Your task to perform on an android device: toggle notifications settings in the gmail app Image 0: 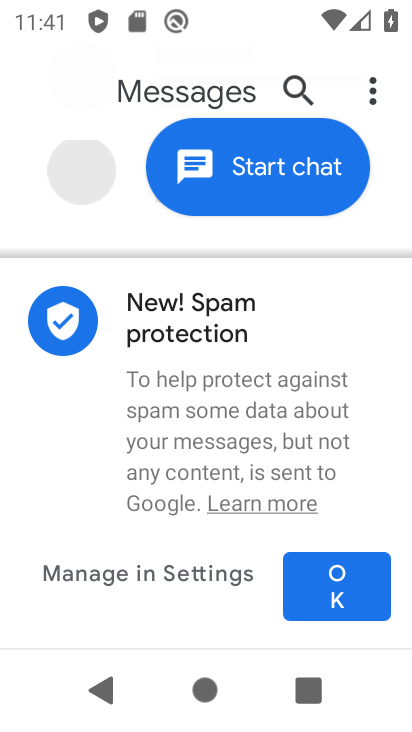
Step 0: press home button
Your task to perform on an android device: toggle notifications settings in the gmail app Image 1: 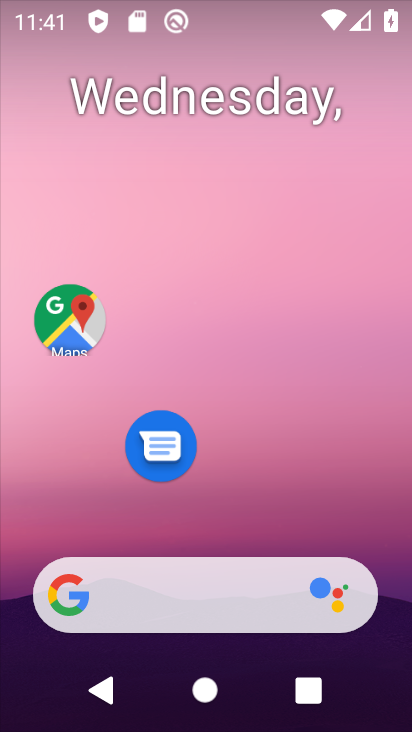
Step 1: drag from (245, 515) to (54, 75)
Your task to perform on an android device: toggle notifications settings in the gmail app Image 2: 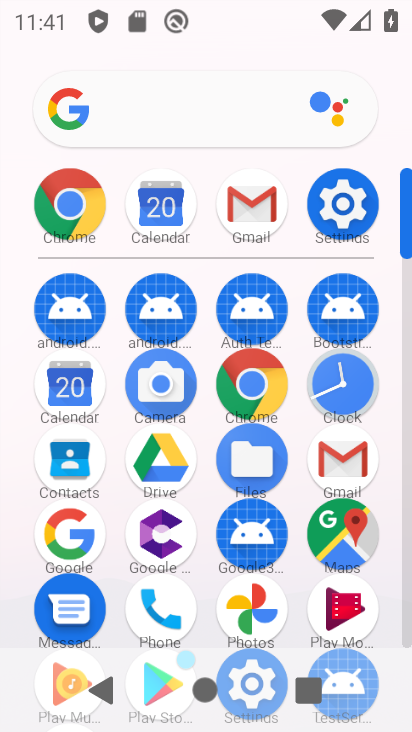
Step 2: click (253, 206)
Your task to perform on an android device: toggle notifications settings in the gmail app Image 3: 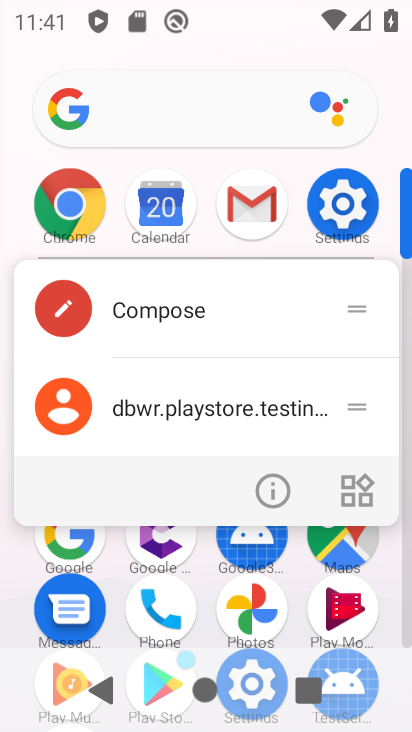
Step 3: click (254, 180)
Your task to perform on an android device: toggle notifications settings in the gmail app Image 4: 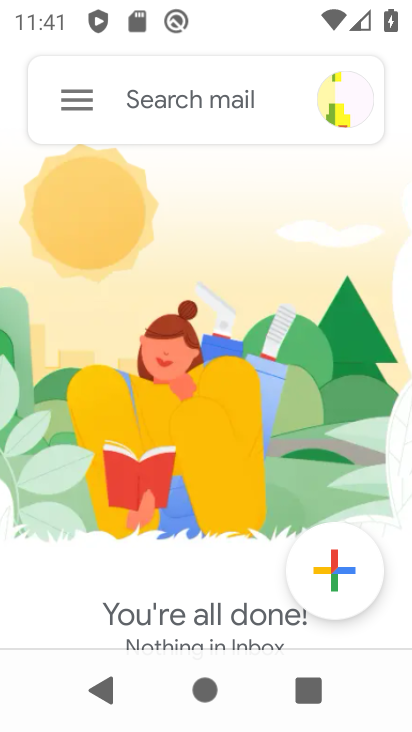
Step 4: click (74, 101)
Your task to perform on an android device: toggle notifications settings in the gmail app Image 5: 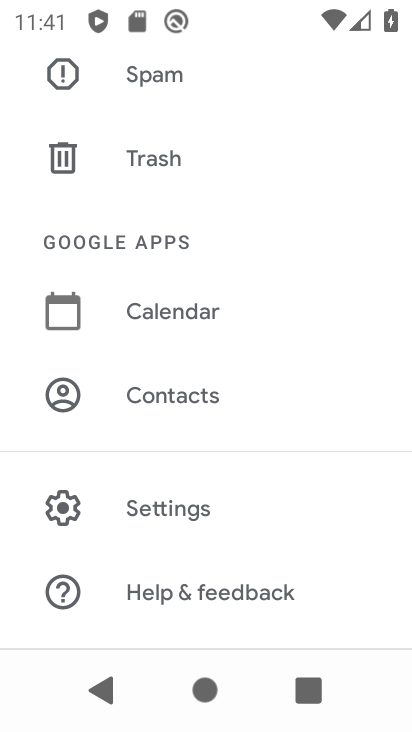
Step 5: click (130, 515)
Your task to perform on an android device: toggle notifications settings in the gmail app Image 6: 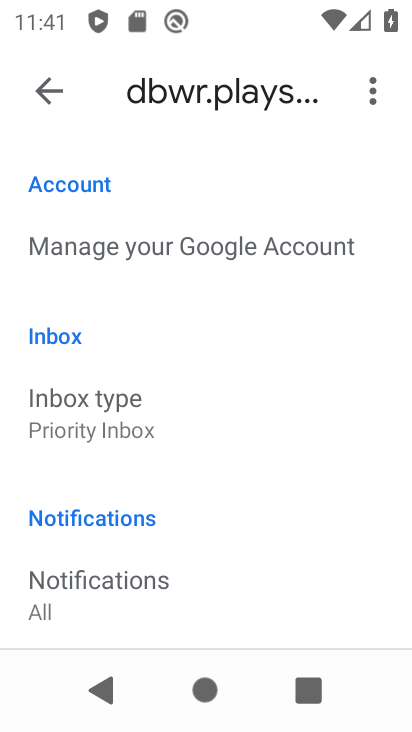
Step 6: drag from (90, 580) to (138, 197)
Your task to perform on an android device: toggle notifications settings in the gmail app Image 7: 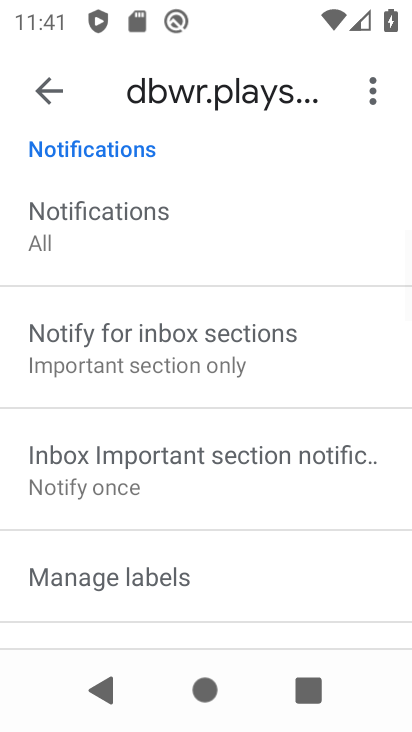
Step 7: drag from (154, 546) to (117, 246)
Your task to perform on an android device: toggle notifications settings in the gmail app Image 8: 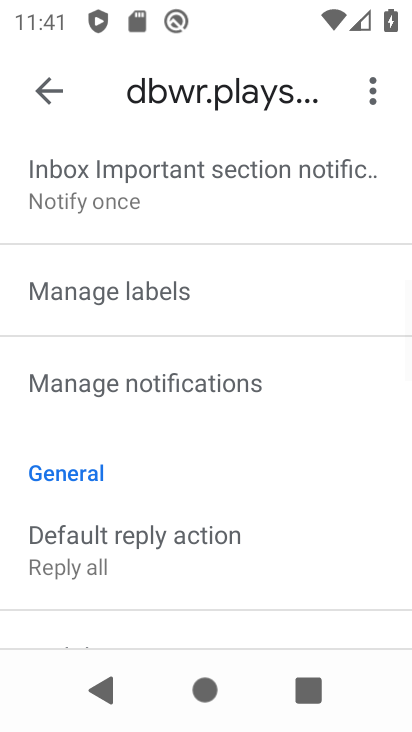
Step 8: click (146, 388)
Your task to perform on an android device: toggle notifications settings in the gmail app Image 9: 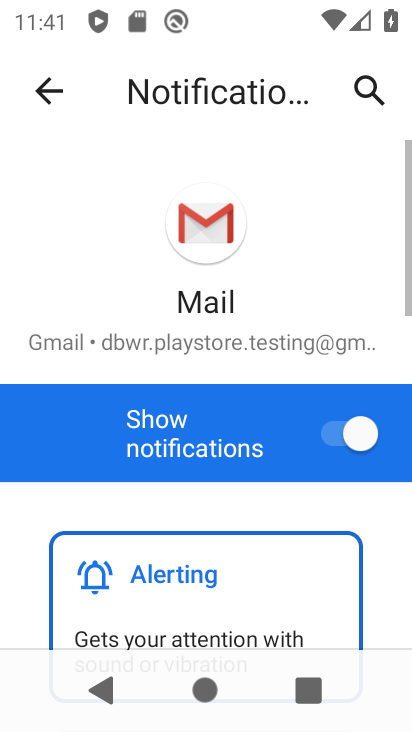
Step 9: click (370, 437)
Your task to perform on an android device: toggle notifications settings in the gmail app Image 10: 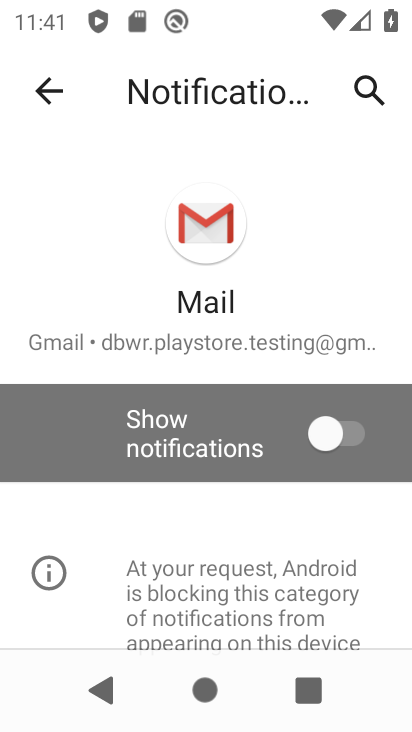
Step 10: task complete